Your task to perform on an android device: turn vacation reply on in the gmail app Image 0: 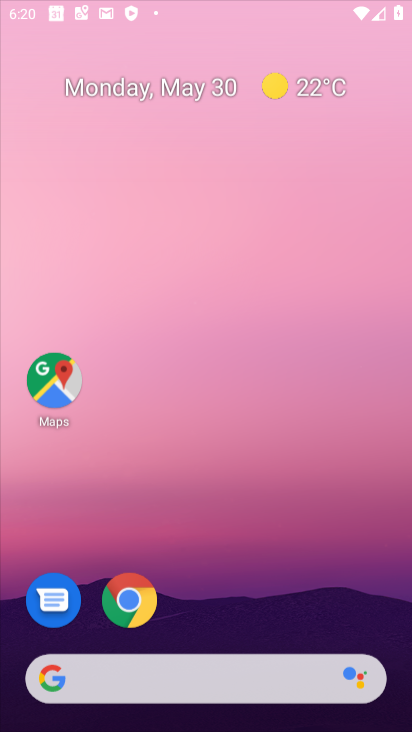
Step 0: press home button
Your task to perform on an android device: turn vacation reply on in the gmail app Image 1: 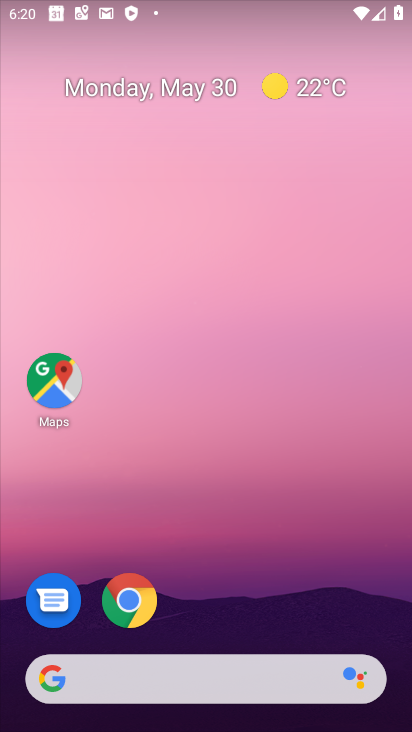
Step 1: drag from (244, 634) to (277, 222)
Your task to perform on an android device: turn vacation reply on in the gmail app Image 2: 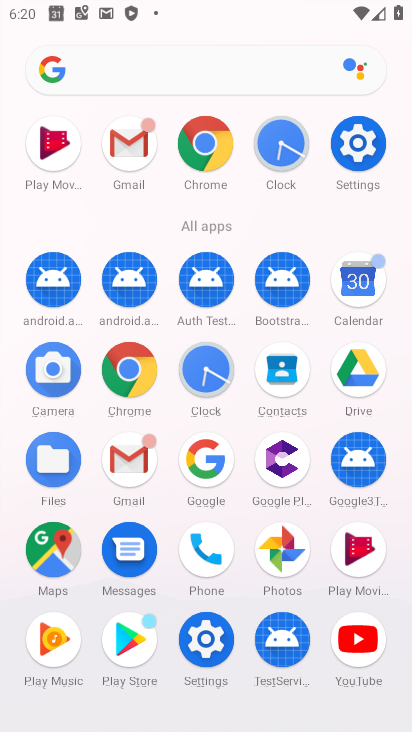
Step 2: click (131, 135)
Your task to perform on an android device: turn vacation reply on in the gmail app Image 3: 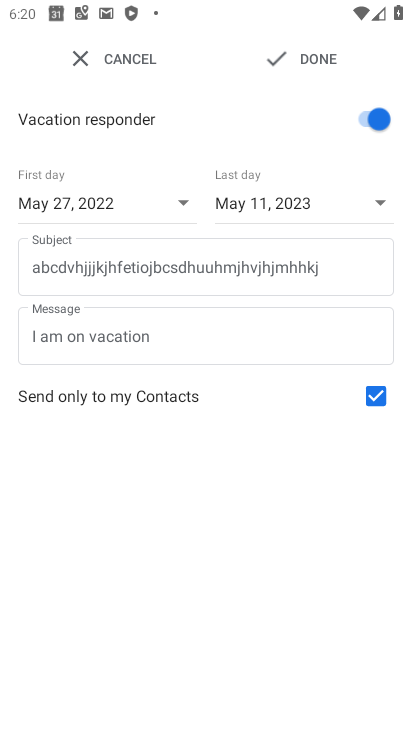
Step 3: task complete